Your task to perform on an android device: turn on improve location accuracy Image 0: 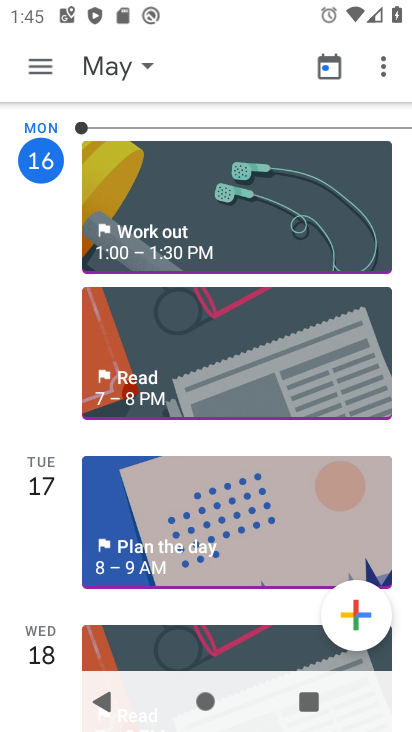
Step 0: press home button
Your task to perform on an android device: turn on improve location accuracy Image 1: 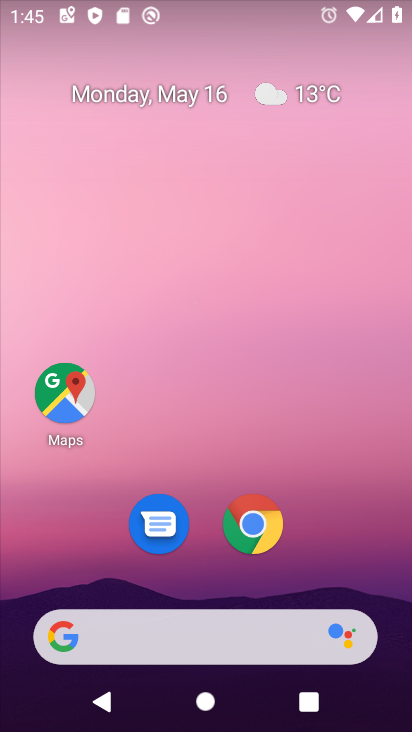
Step 1: drag from (320, 551) to (303, 88)
Your task to perform on an android device: turn on improve location accuracy Image 2: 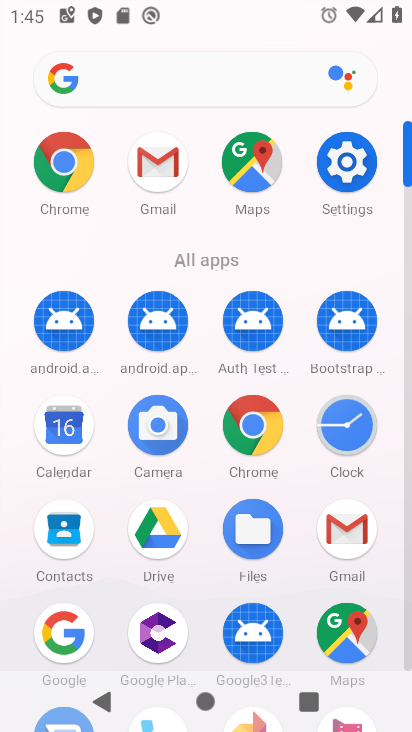
Step 2: click (351, 165)
Your task to perform on an android device: turn on improve location accuracy Image 3: 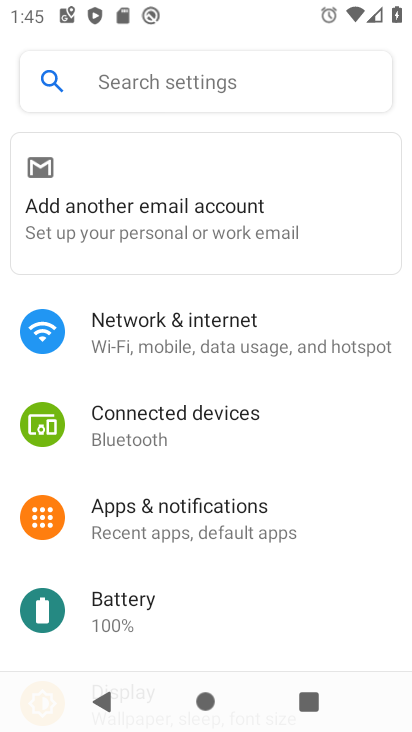
Step 3: drag from (210, 574) to (231, 88)
Your task to perform on an android device: turn on improve location accuracy Image 4: 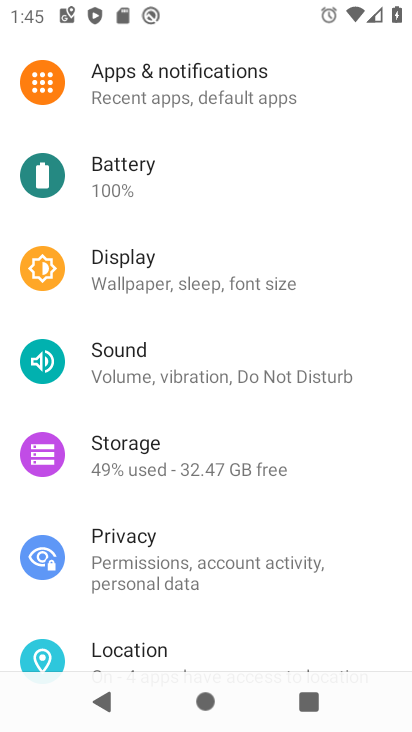
Step 4: drag from (212, 617) to (228, 296)
Your task to perform on an android device: turn on improve location accuracy Image 5: 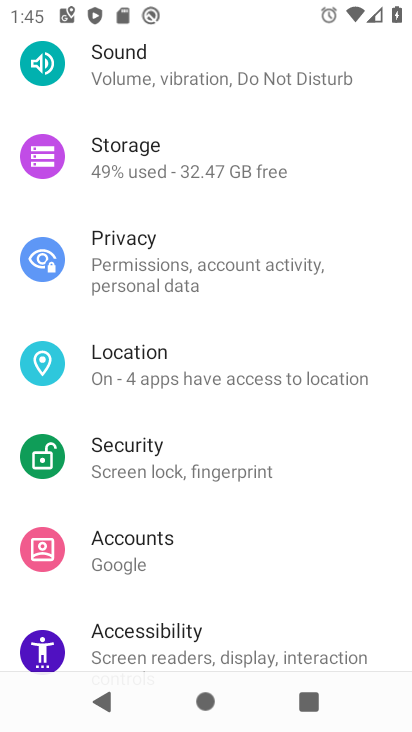
Step 5: click (223, 366)
Your task to perform on an android device: turn on improve location accuracy Image 6: 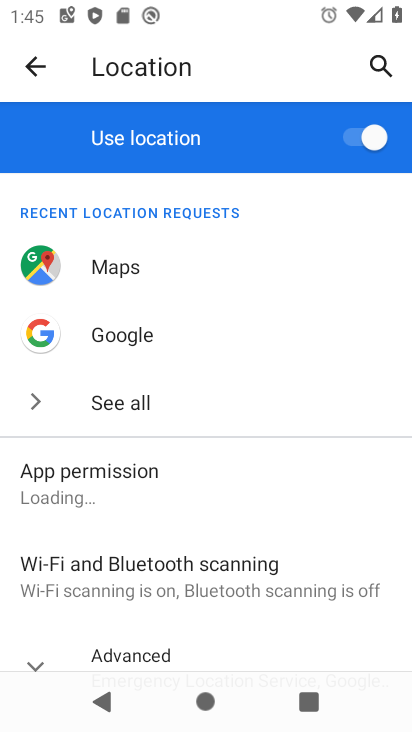
Step 6: drag from (221, 536) to (214, 233)
Your task to perform on an android device: turn on improve location accuracy Image 7: 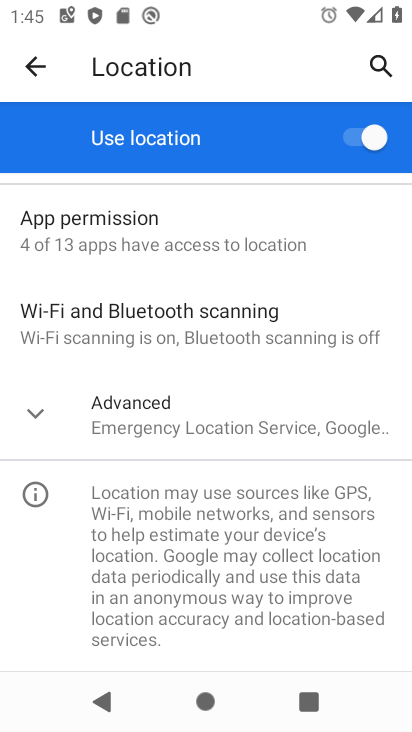
Step 7: click (26, 409)
Your task to perform on an android device: turn on improve location accuracy Image 8: 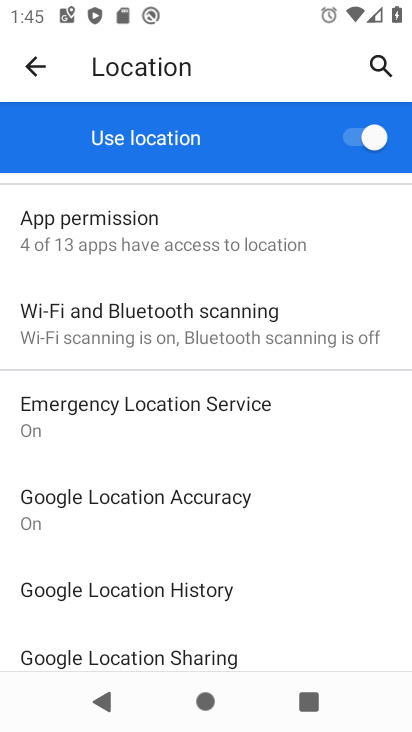
Step 8: click (222, 513)
Your task to perform on an android device: turn on improve location accuracy Image 9: 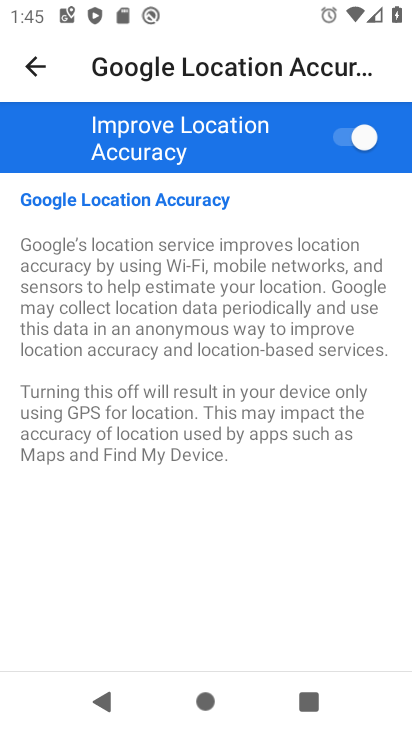
Step 9: task complete